Your task to perform on an android device: turn off picture-in-picture Image 0: 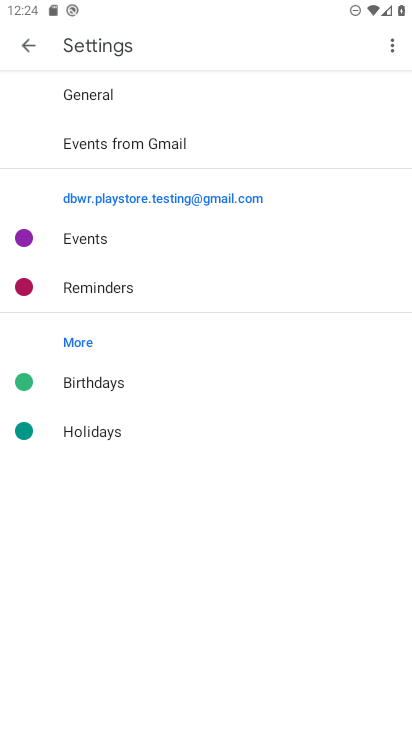
Step 0: press home button
Your task to perform on an android device: turn off picture-in-picture Image 1: 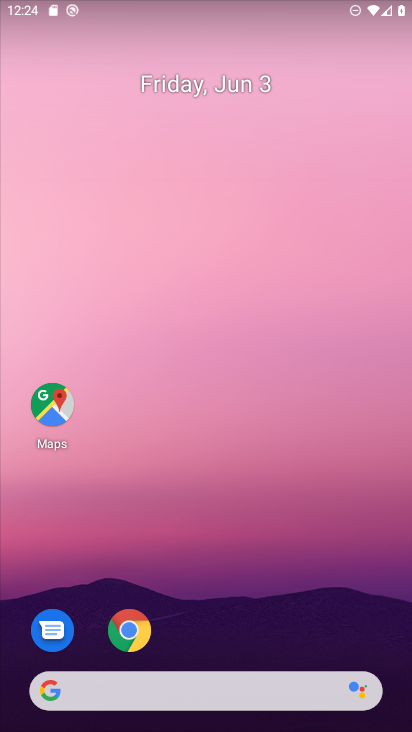
Step 1: click (140, 627)
Your task to perform on an android device: turn off picture-in-picture Image 2: 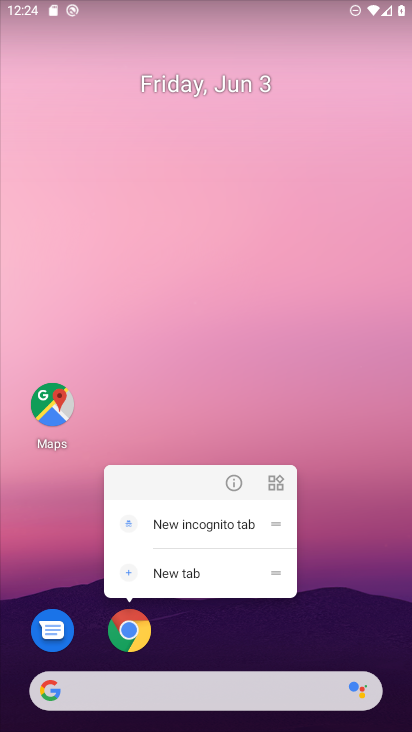
Step 2: click (233, 486)
Your task to perform on an android device: turn off picture-in-picture Image 3: 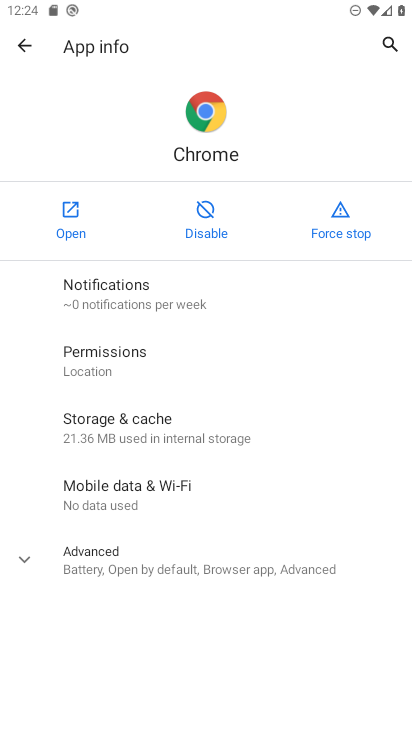
Step 3: click (175, 567)
Your task to perform on an android device: turn off picture-in-picture Image 4: 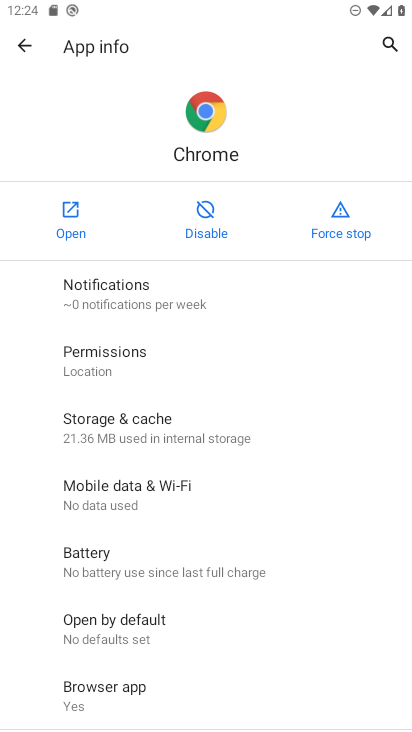
Step 4: drag from (234, 658) to (192, 306)
Your task to perform on an android device: turn off picture-in-picture Image 5: 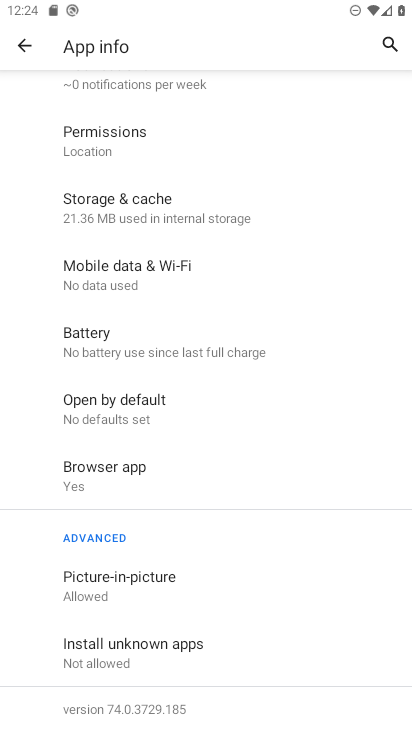
Step 5: click (260, 586)
Your task to perform on an android device: turn off picture-in-picture Image 6: 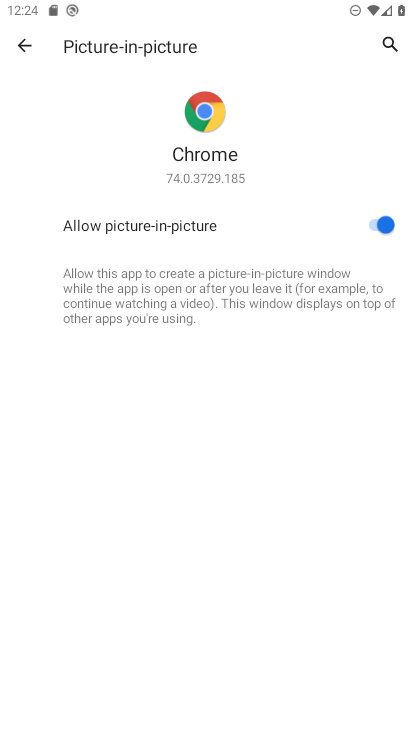
Step 6: click (375, 224)
Your task to perform on an android device: turn off picture-in-picture Image 7: 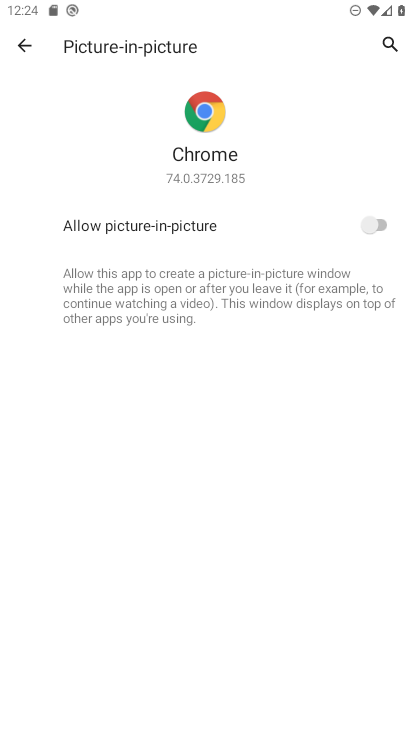
Step 7: task complete